Your task to perform on an android device: Open accessibility settings Image 0: 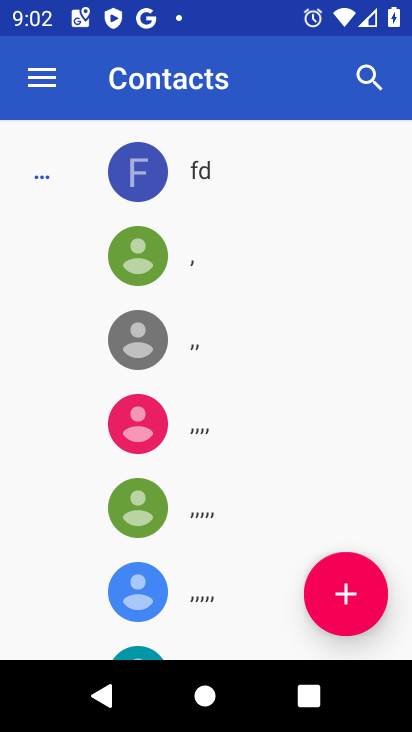
Step 0: press home button
Your task to perform on an android device: Open accessibility settings Image 1: 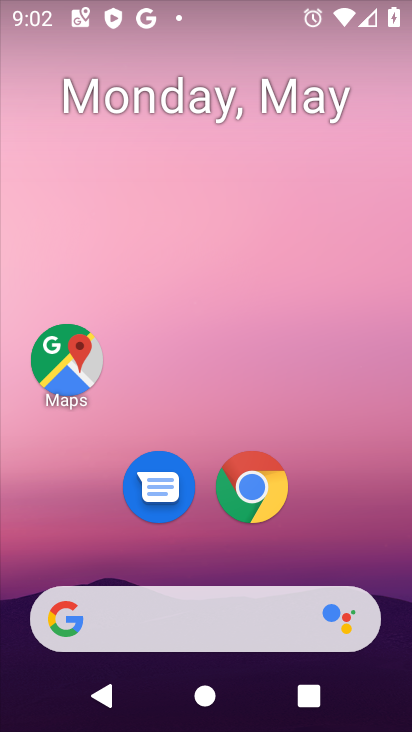
Step 1: drag from (182, 548) to (232, 144)
Your task to perform on an android device: Open accessibility settings Image 2: 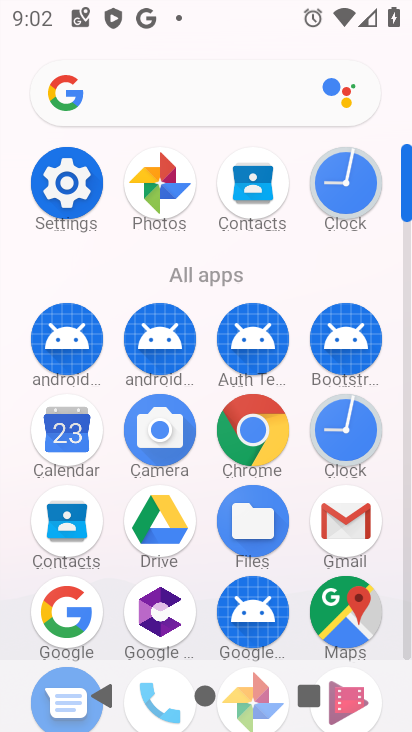
Step 2: click (46, 170)
Your task to perform on an android device: Open accessibility settings Image 3: 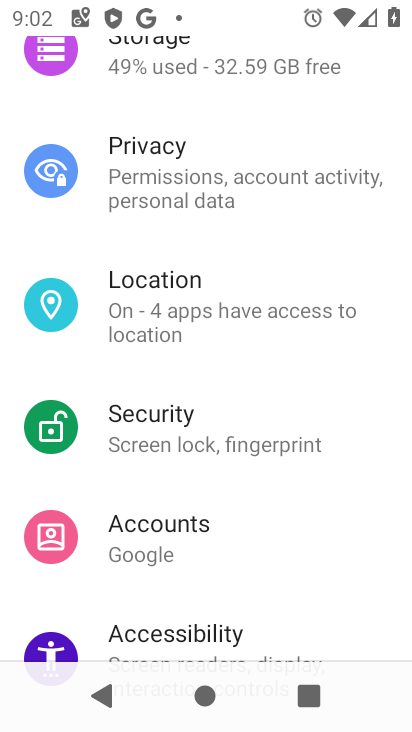
Step 3: click (190, 633)
Your task to perform on an android device: Open accessibility settings Image 4: 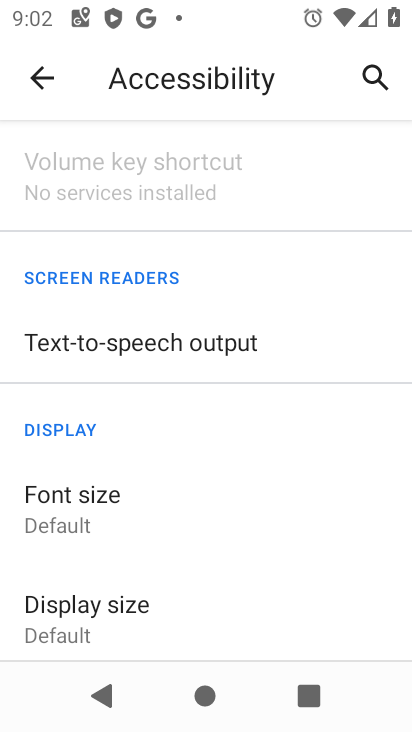
Step 4: task complete